Your task to perform on an android device: clear all cookies in the chrome app Image 0: 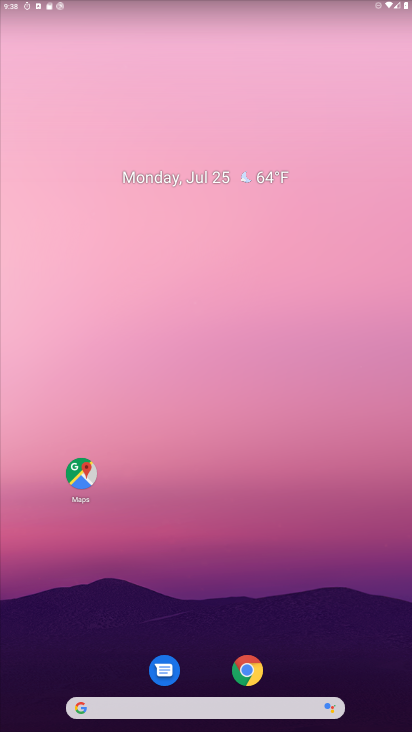
Step 0: drag from (359, 652) to (201, 6)
Your task to perform on an android device: clear all cookies in the chrome app Image 1: 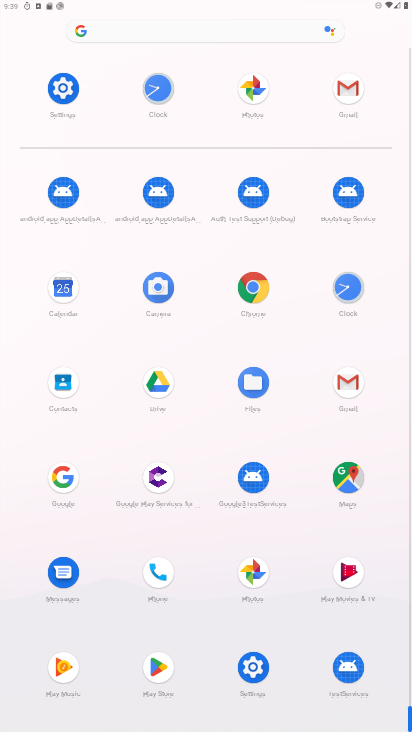
Step 1: click (261, 293)
Your task to perform on an android device: clear all cookies in the chrome app Image 2: 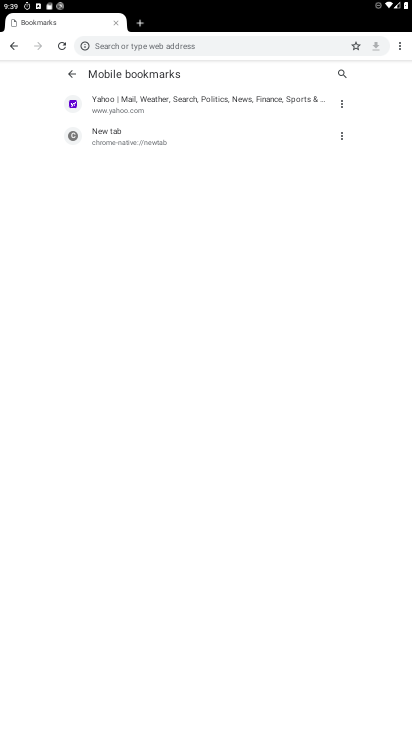
Step 2: click (400, 45)
Your task to perform on an android device: clear all cookies in the chrome app Image 3: 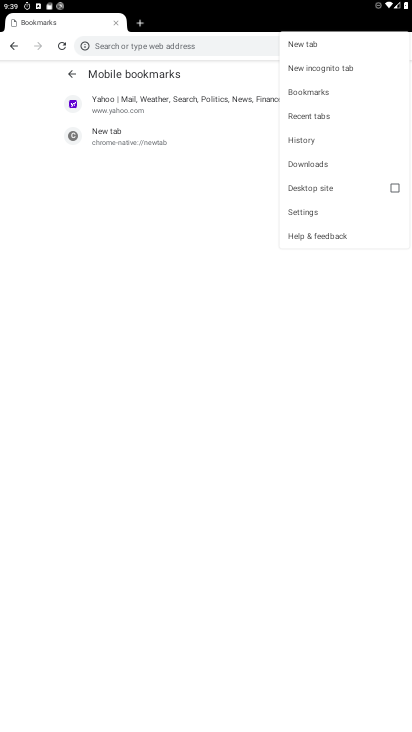
Step 3: click (293, 135)
Your task to perform on an android device: clear all cookies in the chrome app Image 4: 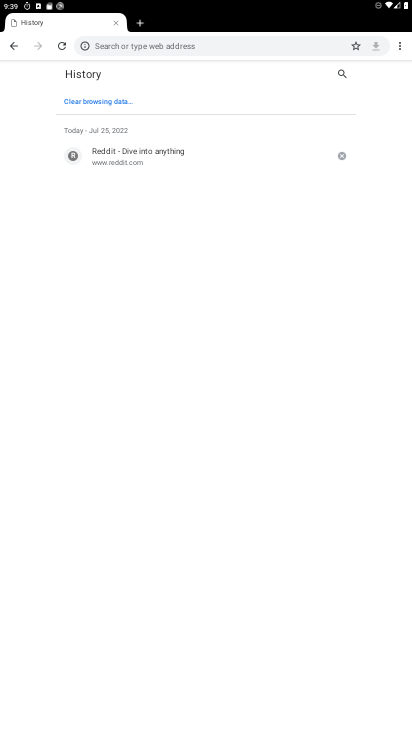
Step 4: click (90, 99)
Your task to perform on an android device: clear all cookies in the chrome app Image 5: 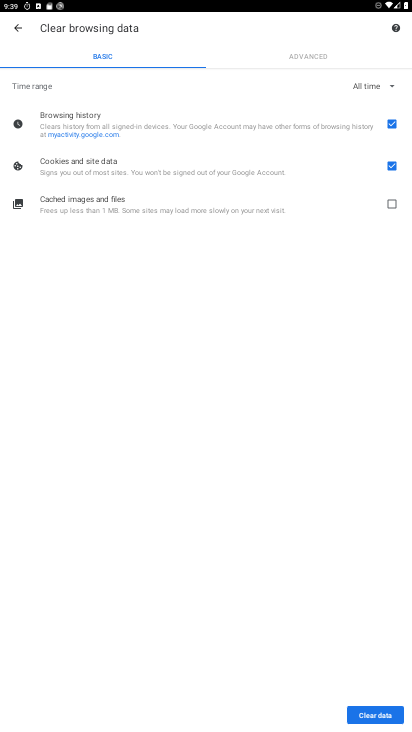
Step 5: click (365, 711)
Your task to perform on an android device: clear all cookies in the chrome app Image 6: 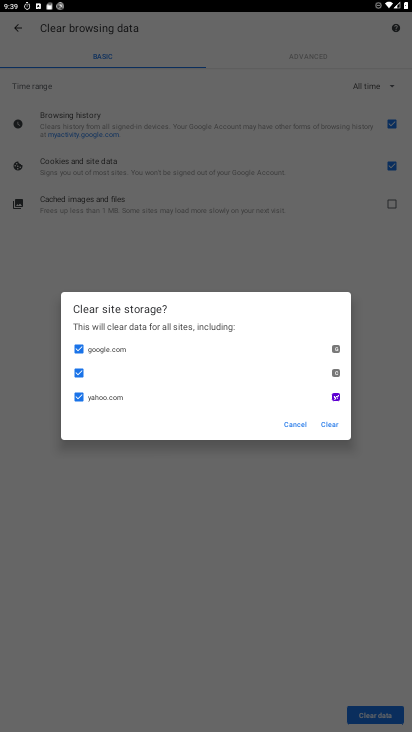
Step 6: click (331, 426)
Your task to perform on an android device: clear all cookies in the chrome app Image 7: 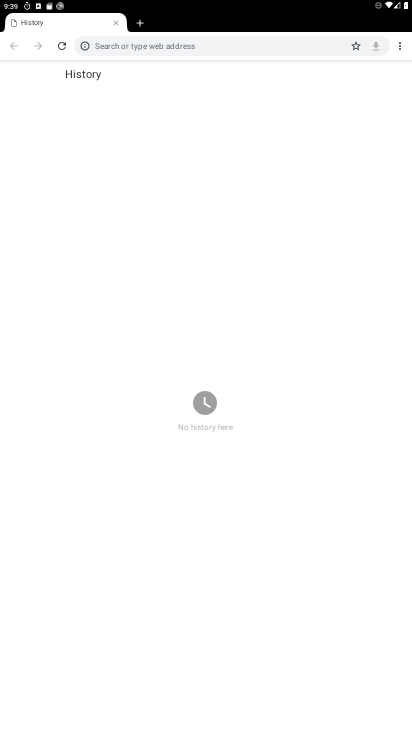
Step 7: task complete